Your task to perform on an android device: Go to Maps Image 0: 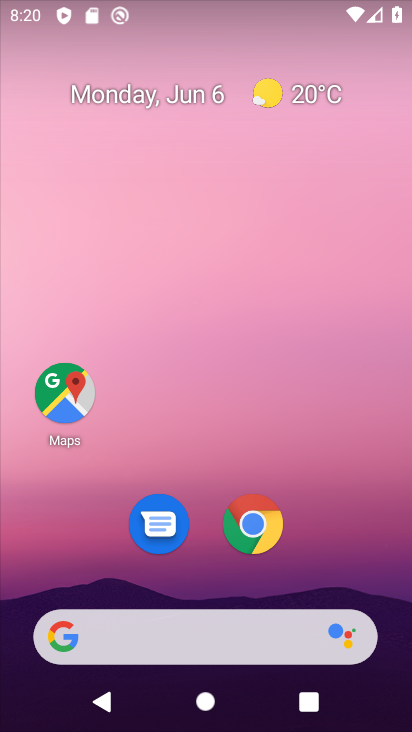
Step 0: click (54, 383)
Your task to perform on an android device: Go to Maps Image 1: 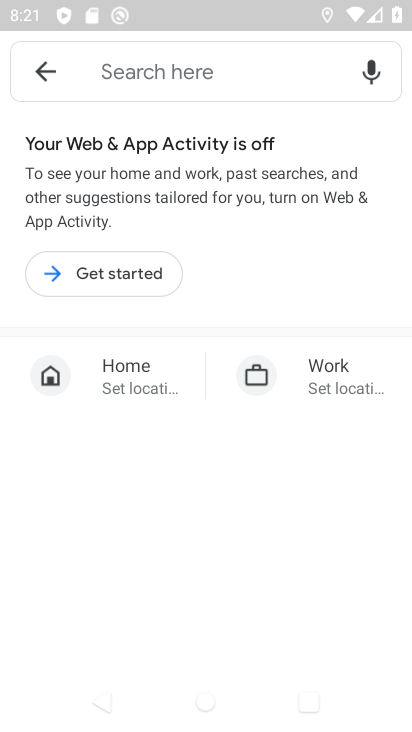
Step 1: click (42, 73)
Your task to perform on an android device: Go to Maps Image 2: 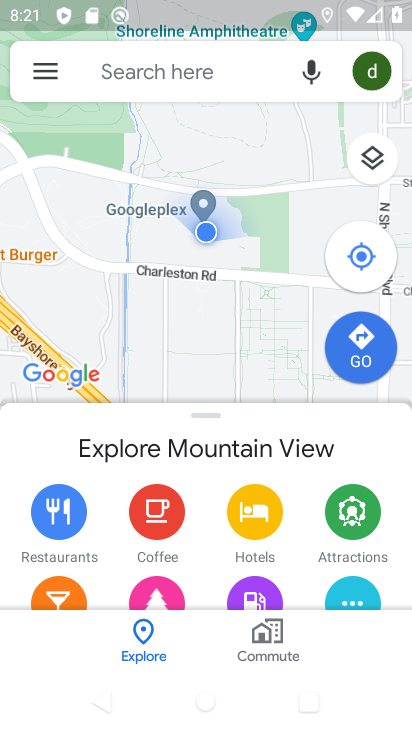
Step 2: task complete